Your task to perform on an android device: Go to notification settings Image 0: 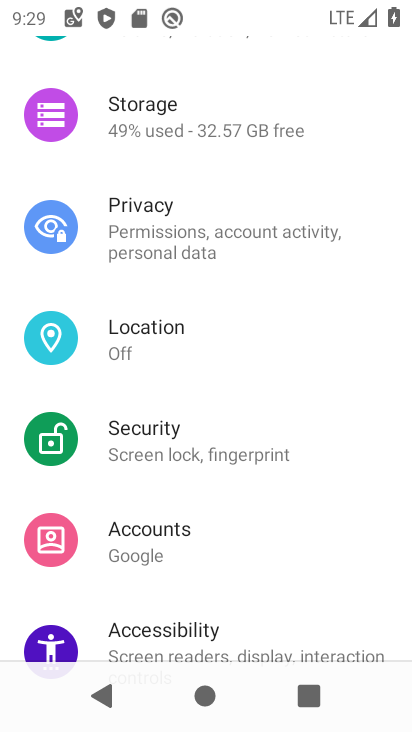
Step 0: drag from (206, 240) to (188, 616)
Your task to perform on an android device: Go to notification settings Image 1: 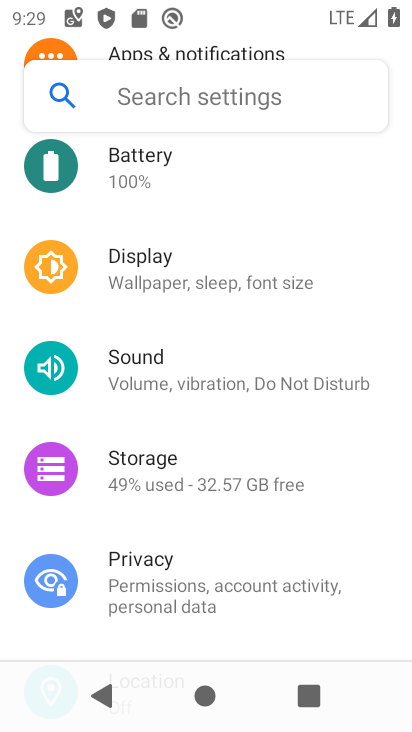
Step 1: drag from (239, 229) to (248, 654)
Your task to perform on an android device: Go to notification settings Image 2: 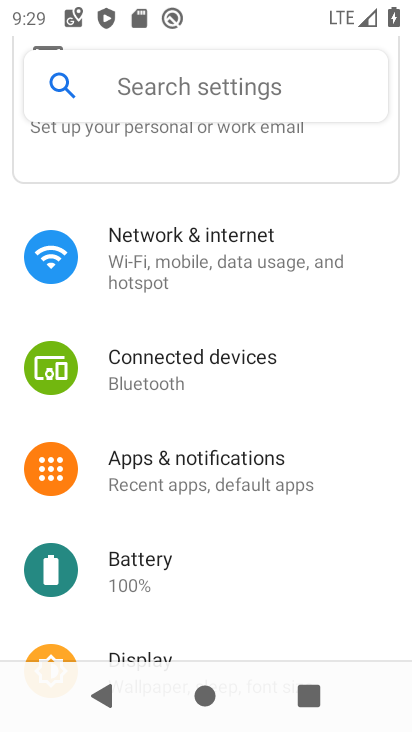
Step 2: click (242, 469)
Your task to perform on an android device: Go to notification settings Image 3: 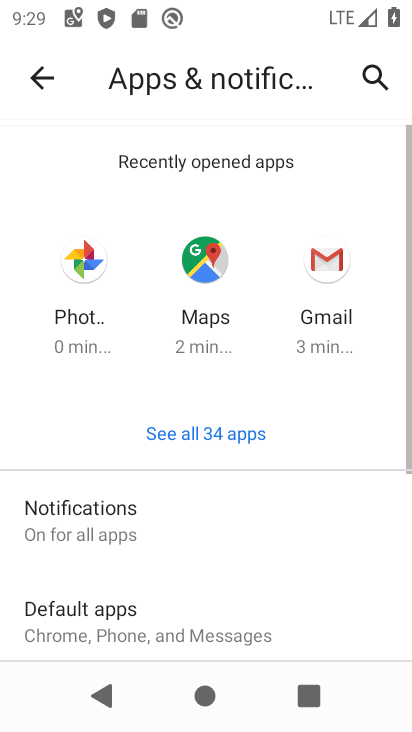
Step 3: task complete